Your task to perform on an android device: turn off smart reply in the gmail app Image 0: 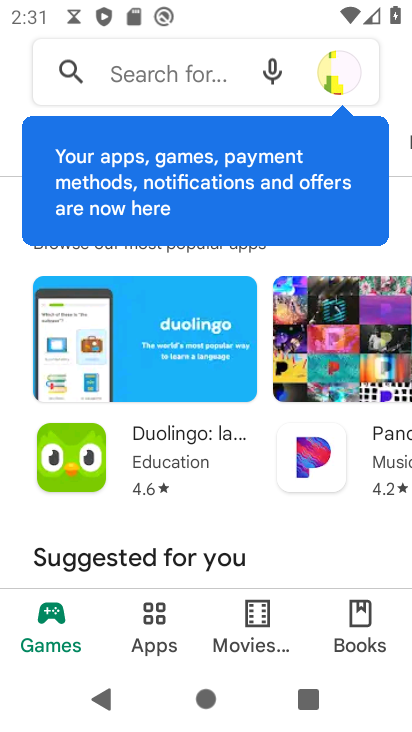
Step 0: press home button
Your task to perform on an android device: turn off smart reply in the gmail app Image 1: 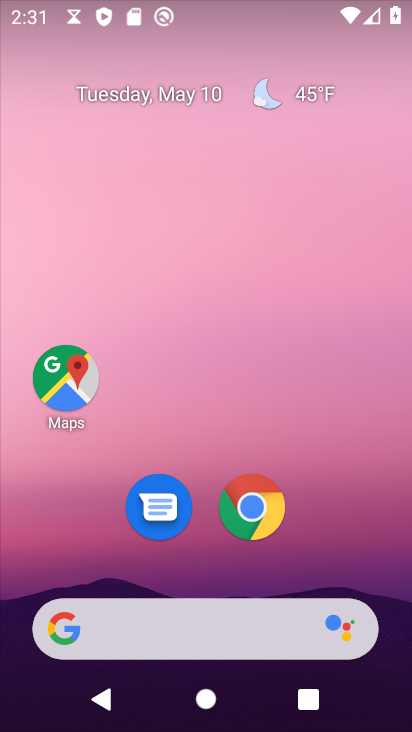
Step 1: drag from (262, 318) to (63, 104)
Your task to perform on an android device: turn off smart reply in the gmail app Image 2: 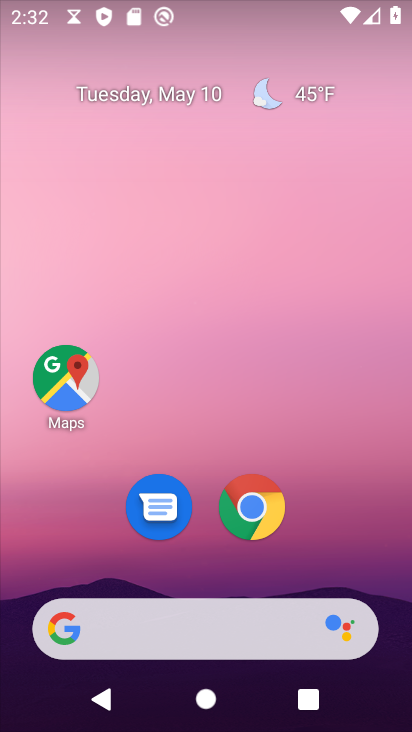
Step 2: drag from (124, 460) to (69, 66)
Your task to perform on an android device: turn off smart reply in the gmail app Image 3: 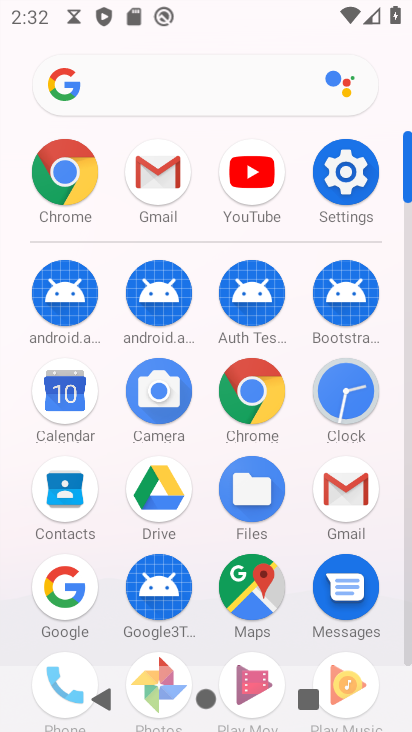
Step 3: click (348, 482)
Your task to perform on an android device: turn off smart reply in the gmail app Image 4: 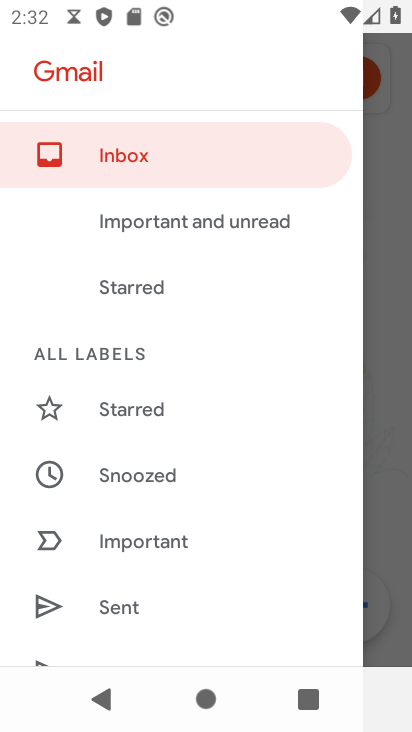
Step 4: drag from (181, 605) to (188, 118)
Your task to perform on an android device: turn off smart reply in the gmail app Image 5: 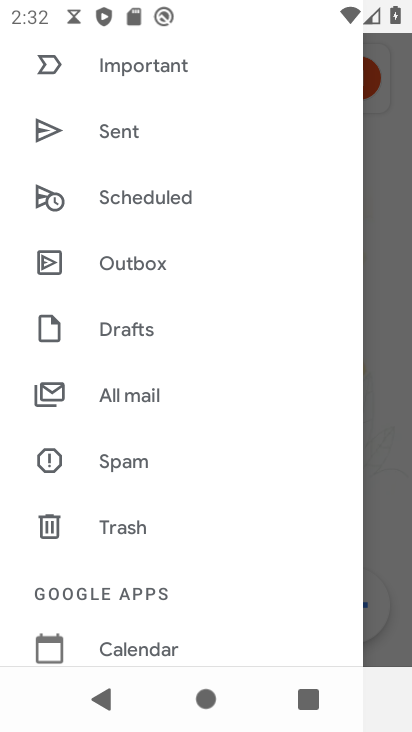
Step 5: drag from (180, 603) to (214, 119)
Your task to perform on an android device: turn off smart reply in the gmail app Image 6: 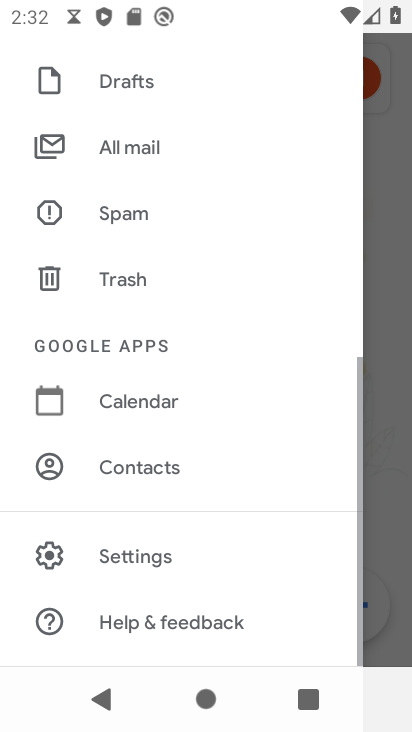
Step 6: click (119, 553)
Your task to perform on an android device: turn off smart reply in the gmail app Image 7: 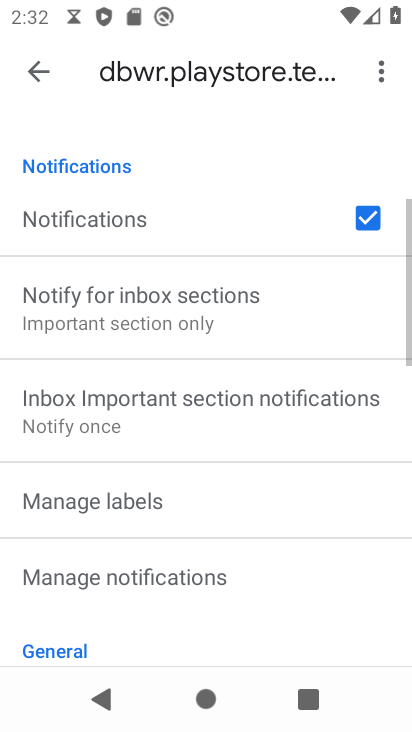
Step 7: drag from (123, 596) to (131, 209)
Your task to perform on an android device: turn off smart reply in the gmail app Image 8: 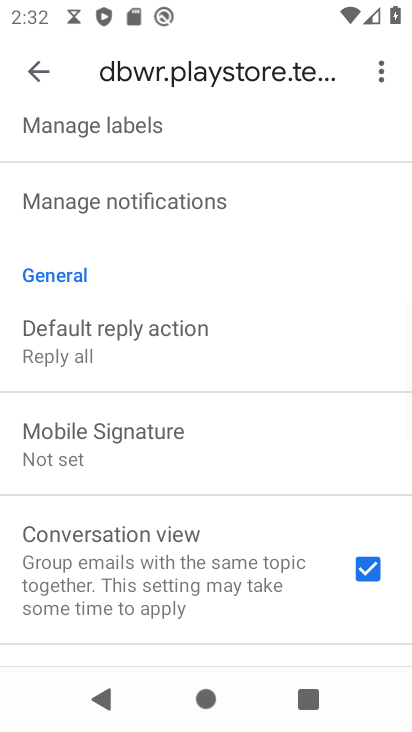
Step 8: drag from (131, 590) to (158, 223)
Your task to perform on an android device: turn off smart reply in the gmail app Image 9: 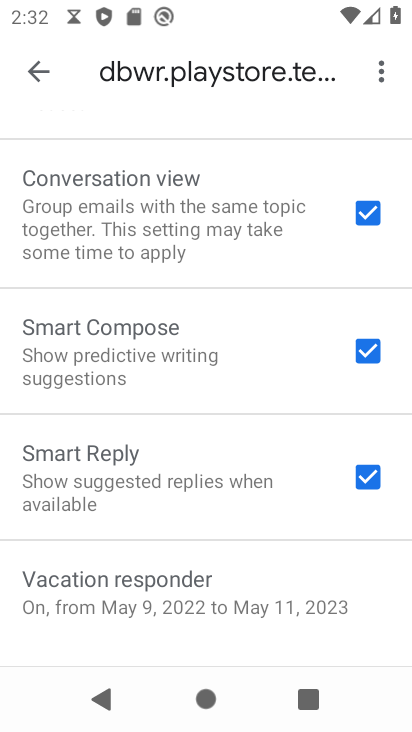
Step 9: click (369, 476)
Your task to perform on an android device: turn off smart reply in the gmail app Image 10: 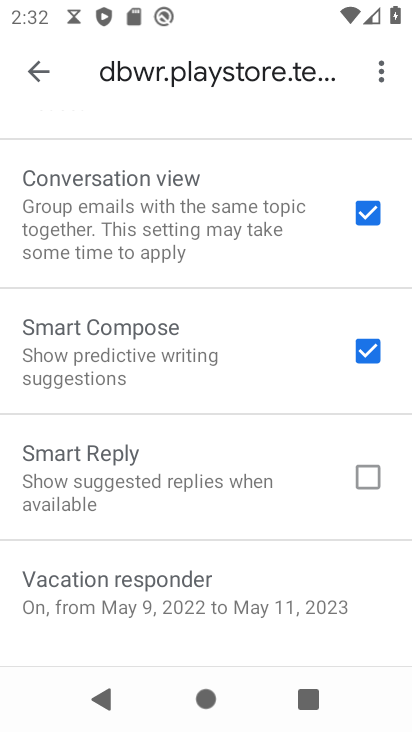
Step 10: task complete